Your task to perform on an android device: Open settings on Google Maps Image 0: 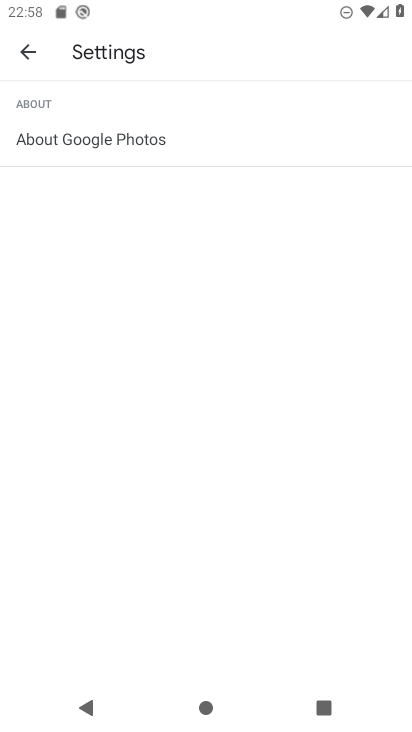
Step 0: press home button
Your task to perform on an android device: Open settings on Google Maps Image 1: 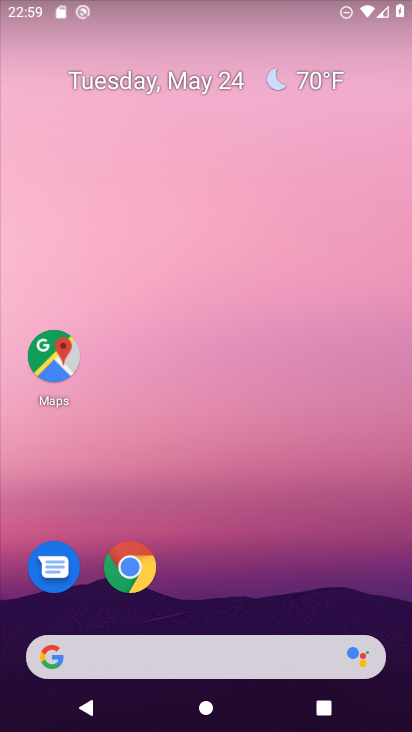
Step 1: click (58, 351)
Your task to perform on an android device: Open settings on Google Maps Image 2: 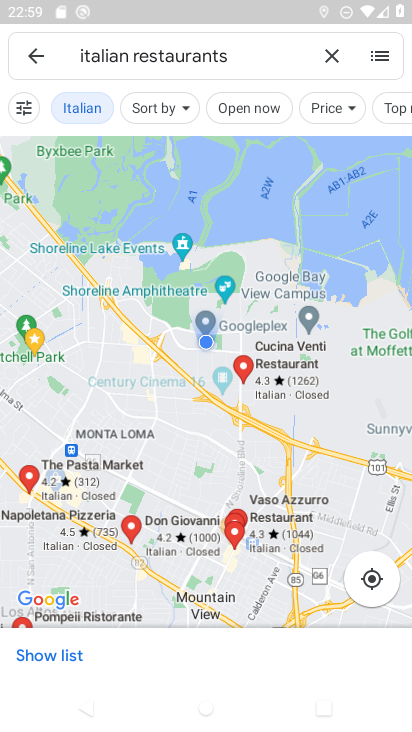
Step 2: click (33, 60)
Your task to perform on an android device: Open settings on Google Maps Image 3: 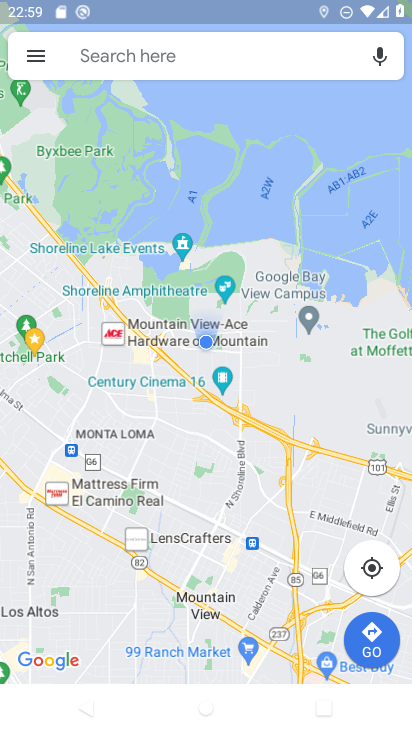
Step 3: click (35, 57)
Your task to perform on an android device: Open settings on Google Maps Image 4: 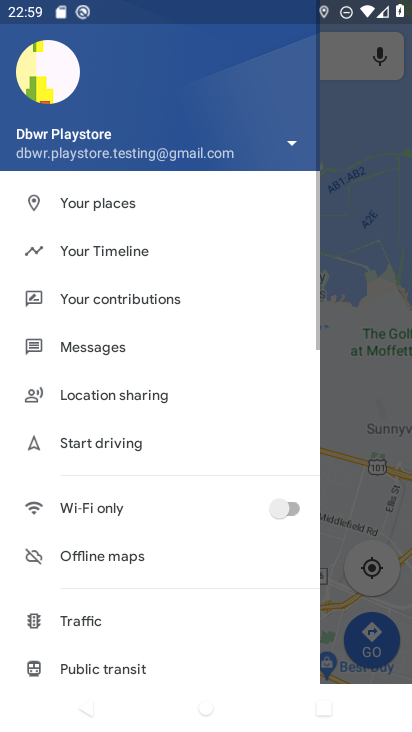
Step 4: drag from (150, 400) to (130, 125)
Your task to perform on an android device: Open settings on Google Maps Image 5: 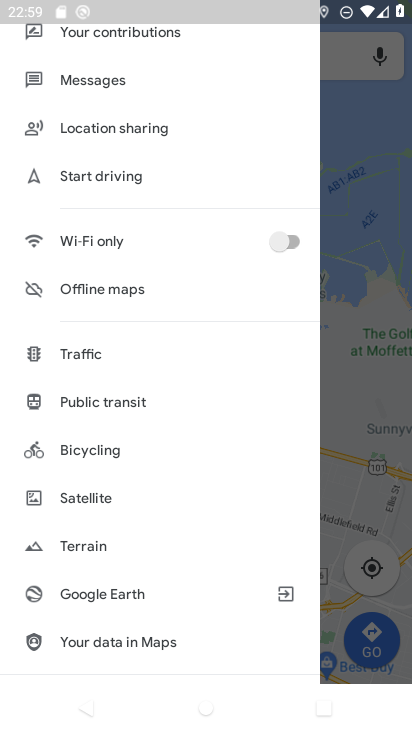
Step 5: drag from (124, 584) to (139, 189)
Your task to perform on an android device: Open settings on Google Maps Image 6: 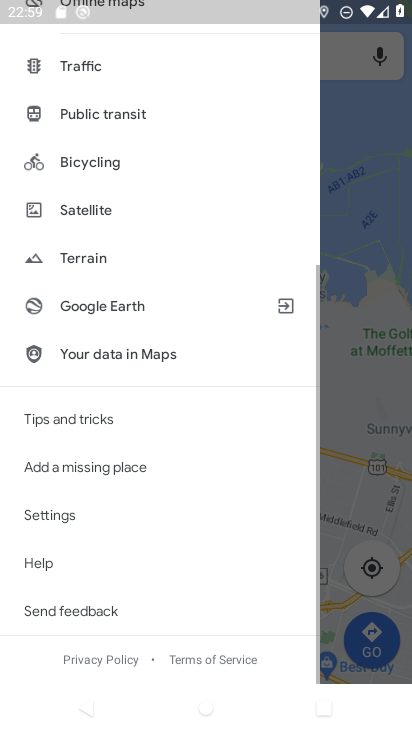
Step 6: click (80, 512)
Your task to perform on an android device: Open settings on Google Maps Image 7: 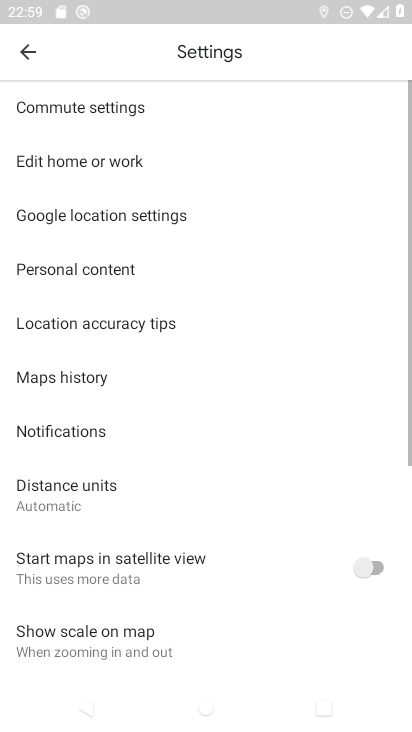
Step 7: task complete